Your task to perform on an android device: delete the emails in spam in the gmail app Image 0: 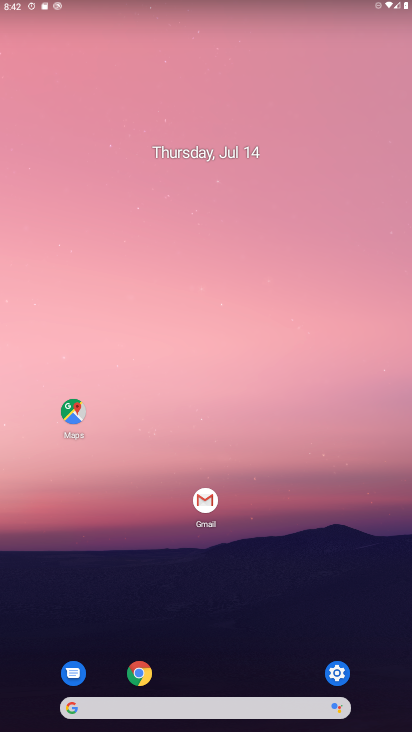
Step 0: click (202, 497)
Your task to perform on an android device: delete the emails in spam in the gmail app Image 1: 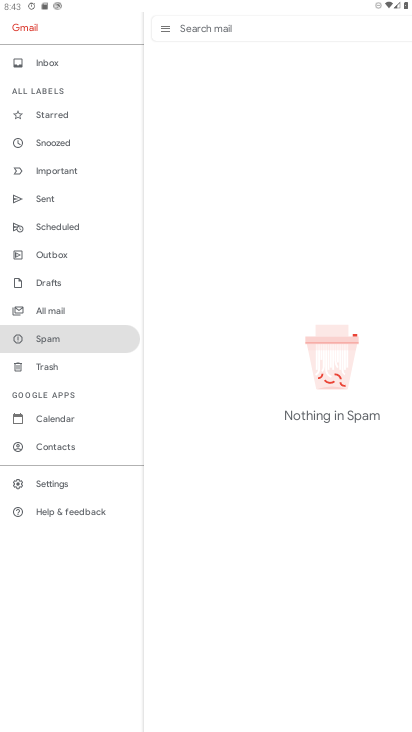
Step 1: click (42, 335)
Your task to perform on an android device: delete the emails in spam in the gmail app Image 2: 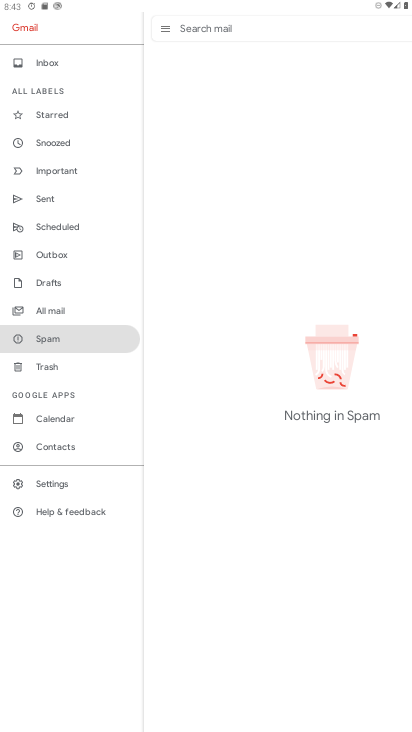
Step 2: task complete